Your task to perform on an android device: Show me recent news Image 0: 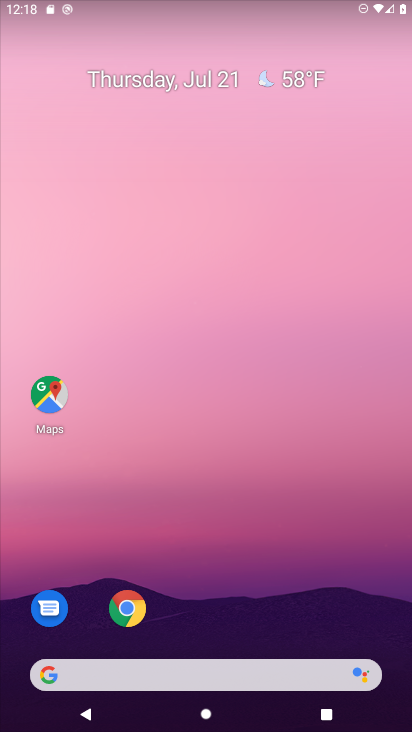
Step 0: press home button
Your task to perform on an android device: Show me recent news Image 1: 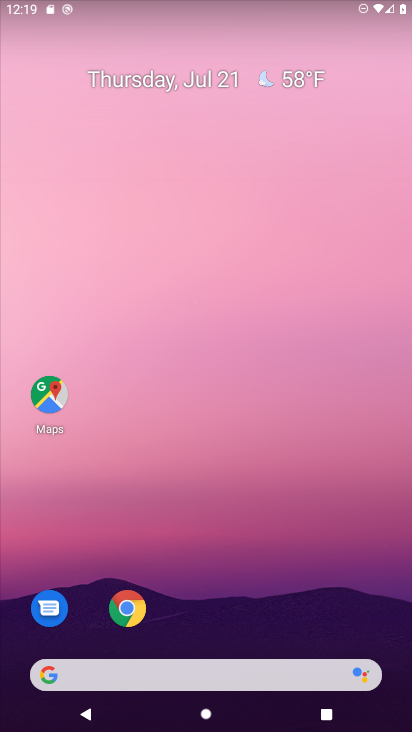
Step 1: type "recent news"
Your task to perform on an android device: Show me recent news Image 2: 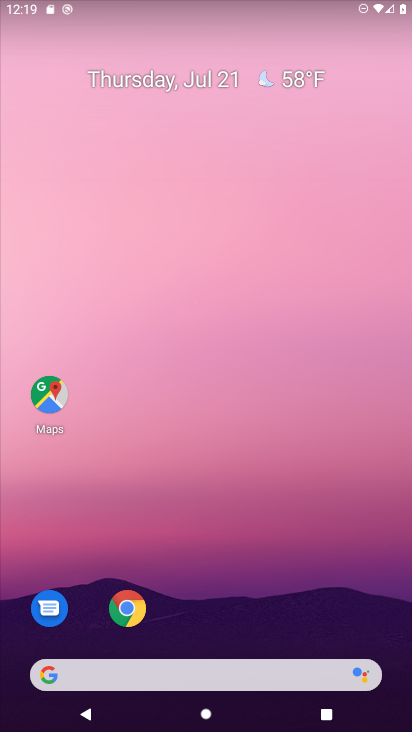
Step 2: click (108, 663)
Your task to perform on an android device: Show me recent news Image 3: 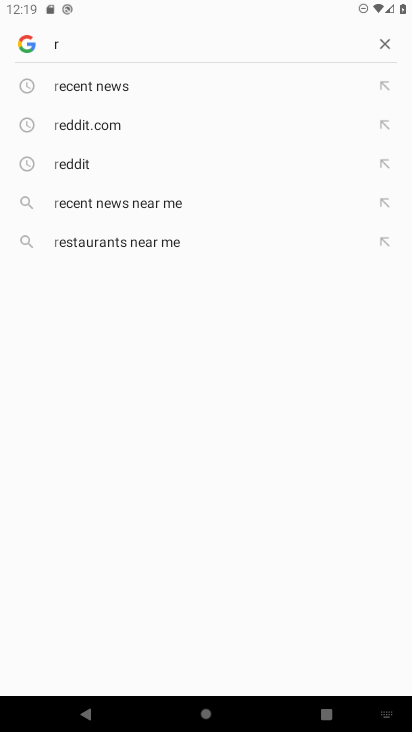
Step 3: click (122, 86)
Your task to perform on an android device: Show me recent news Image 4: 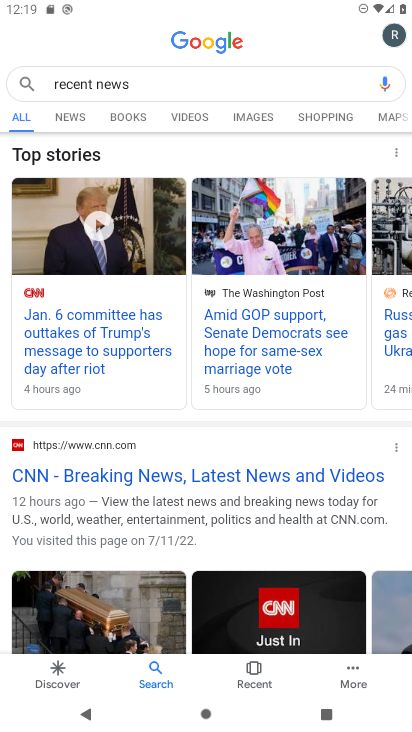
Step 4: task complete